Your task to perform on an android device: add a label to a message in the gmail app Image 0: 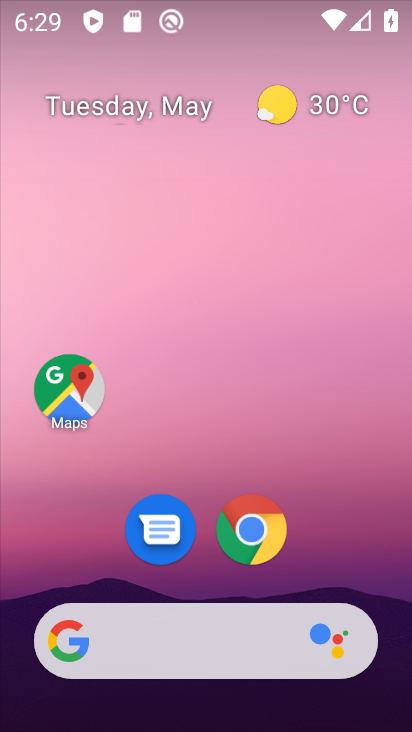
Step 0: drag from (397, 651) to (306, 39)
Your task to perform on an android device: add a label to a message in the gmail app Image 1: 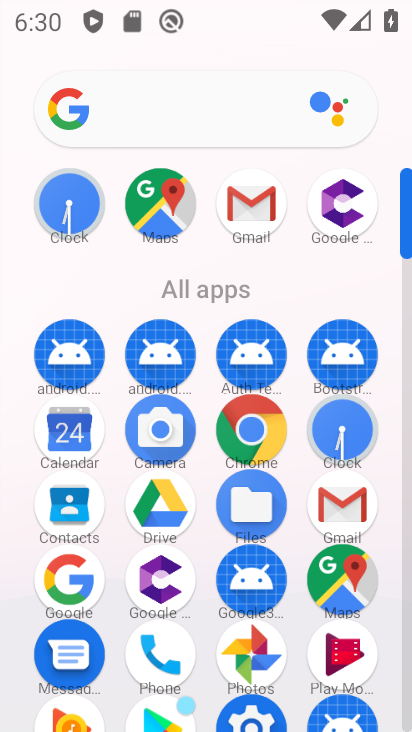
Step 1: click (252, 216)
Your task to perform on an android device: add a label to a message in the gmail app Image 2: 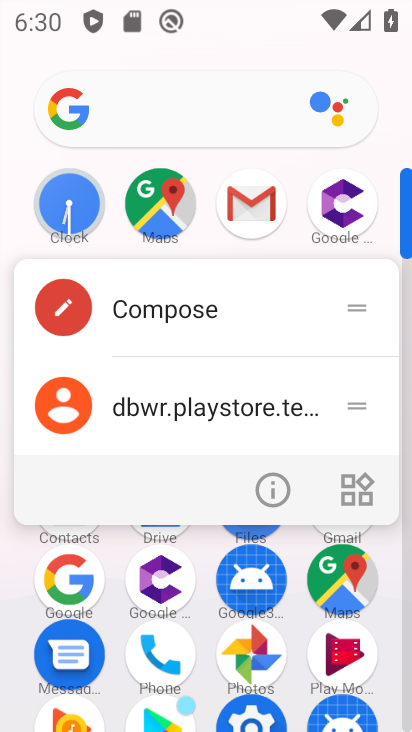
Step 2: click (252, 216)
Your task to perform on an android device: add a label to a message in the gmail app Image 3: 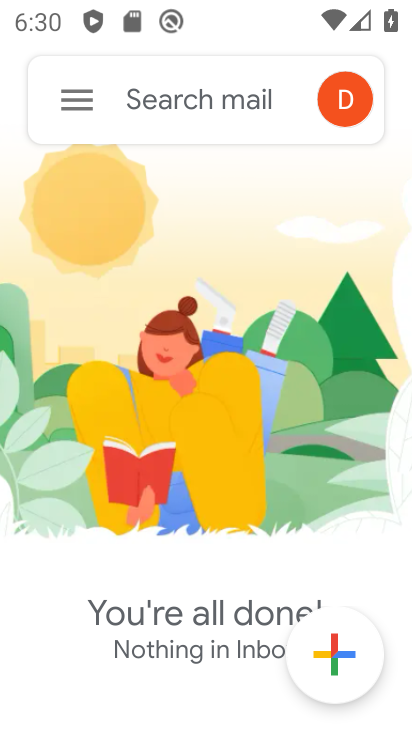
Step 3: task complete